Your task to perform on an android device: Go to battery settings Image 0: 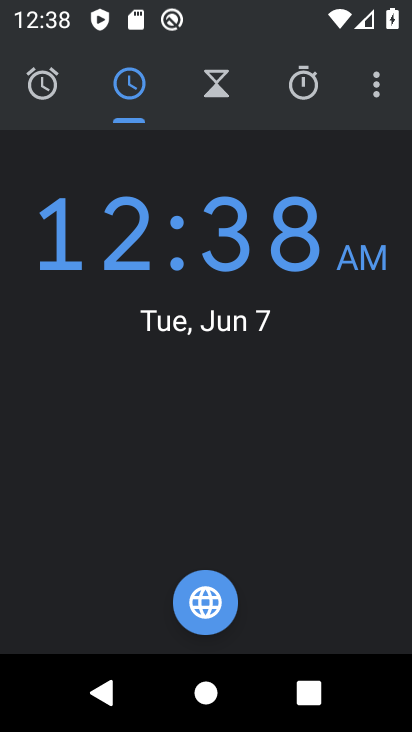
Step 0: press home button
Your task to perform on an android device: Go to battery settings Image 1: 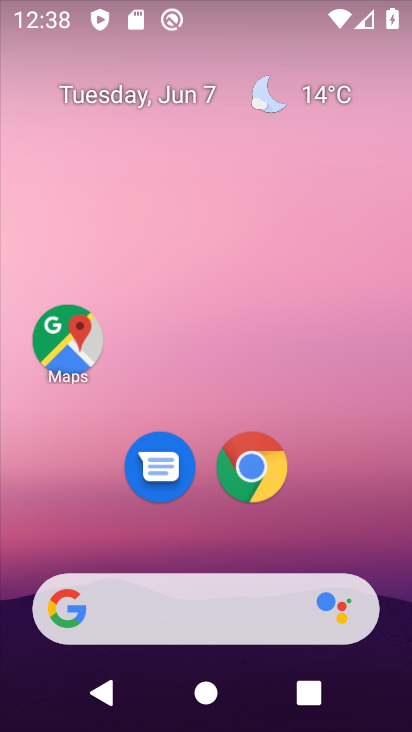
Step 1: drag from (269, 566) to (229, 15)
Your task to perform on an android device: Go to battery settings Image 2: 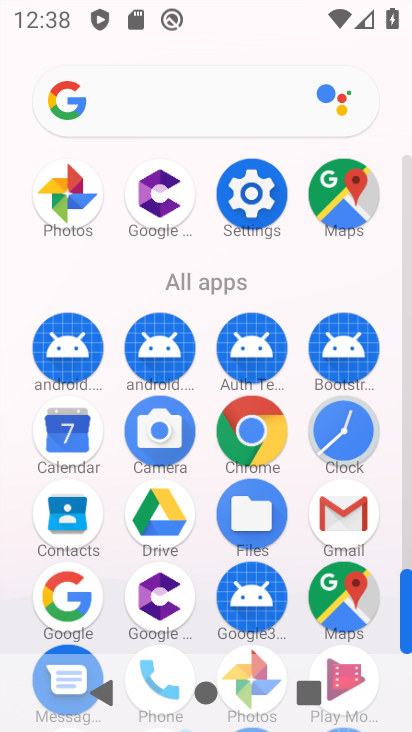
Step 2: click (254, 181)
Your task to perform on an android device: Go to battery settings Image 3: 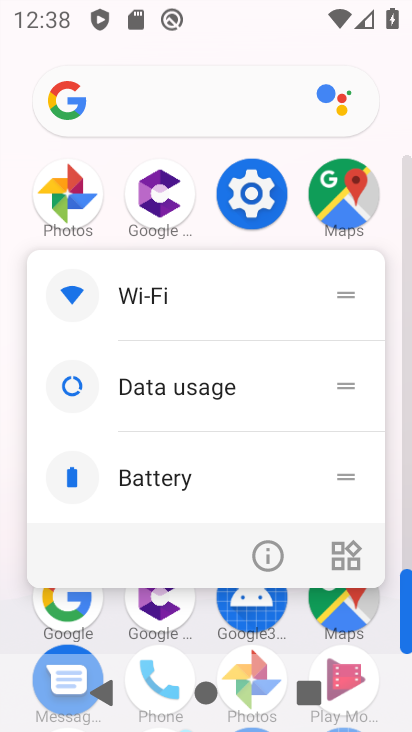
Step 3: click (258, 178)
Your task to perform on an android device: Go to battery settings Image 4: 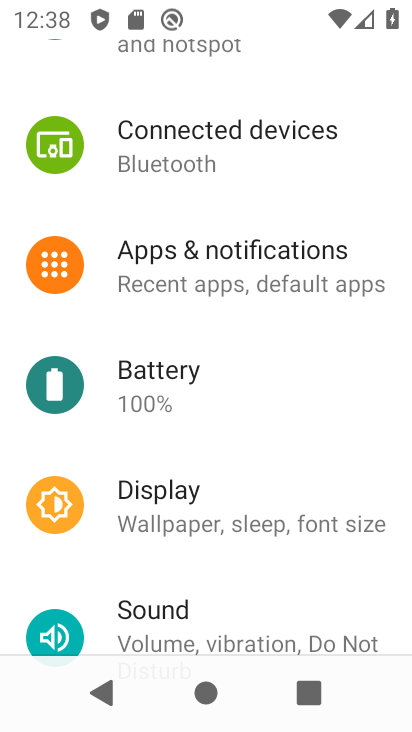
Step 4: click (158, 402)
Your task to perform on an android device: Go to battery settings Image 5: 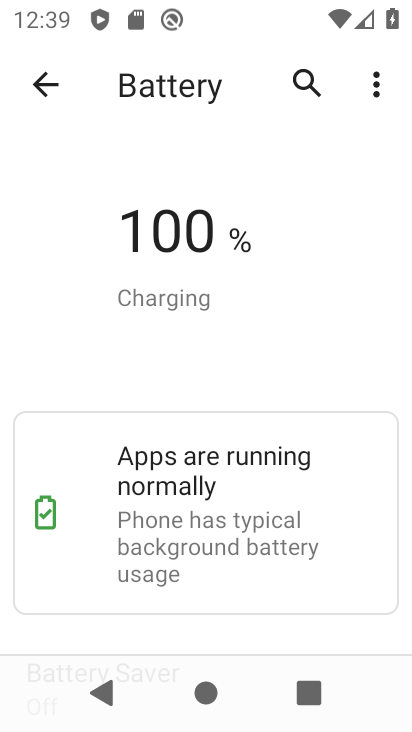
Step 5: task complete